Your task to perform on an android device: When is my next meeting? Image 0: 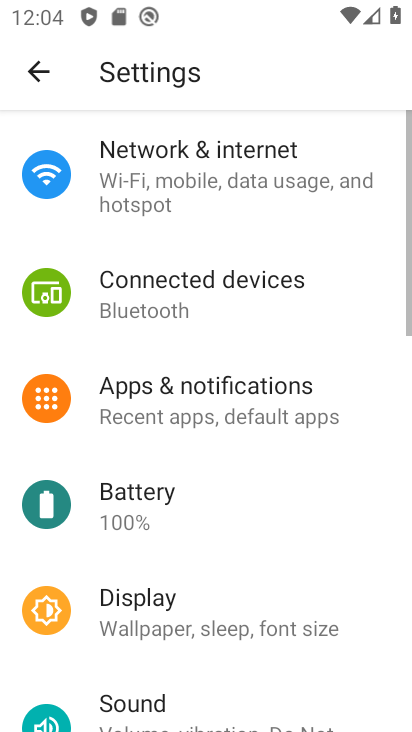
Step 0: task complete